Your task to perform on an android device: open chrome privacy settings Image 0: 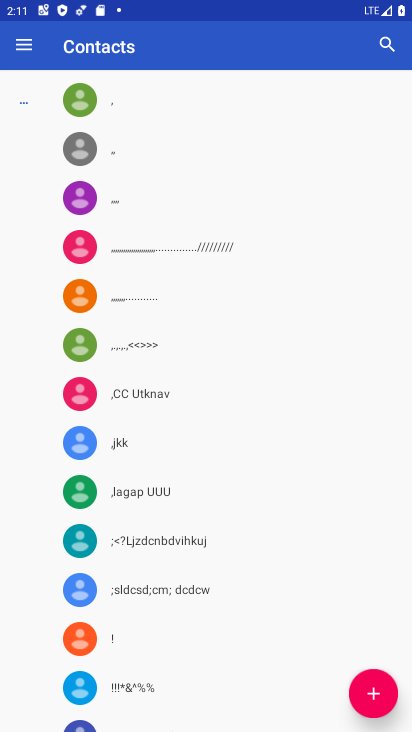
Step 0: press home button
Your task to perform on an android device: open chrome privacy settings Image 1: 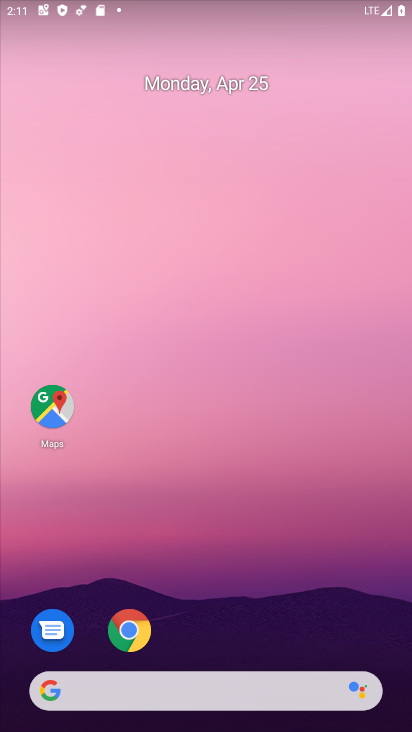
Step 1: drag from (367, 622) to (366, 84)
Your task to perform on an android device: open chrome privacy settings Image 2: 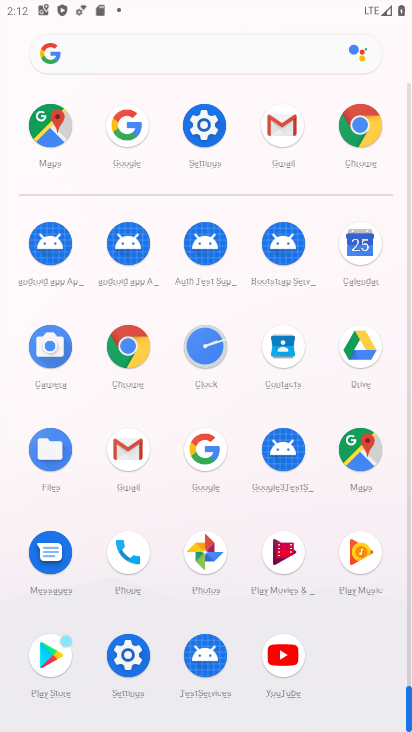
Step 2: click (365, 127)
Your task to perform on an android device: open chrome privacy settings Image 3: 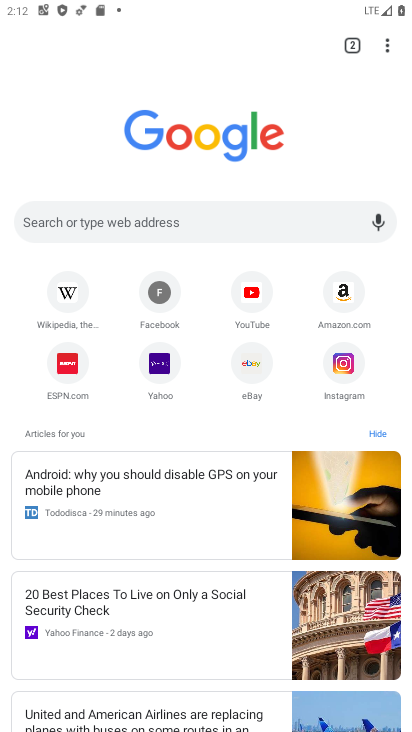
Step 3: click (387, 48)
Your task to perform on an android device: open chrome privacy settings Image 4: 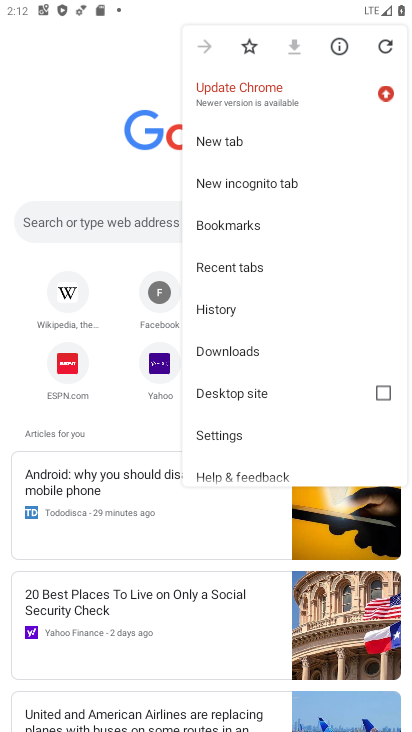
Step 4: click (243, 433)
Your task to perform on an android device: open chrome privacy settings Image 5: 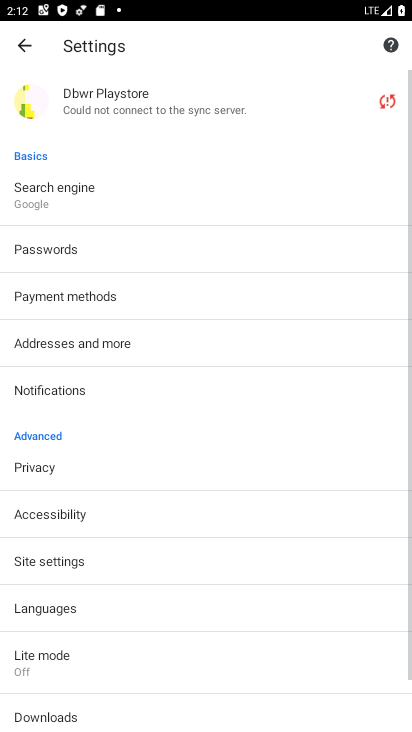
Step 5: drag from (290, 650) to (311, 503)
Your task to perform on an android device: open chrome privacy settings Image 6: 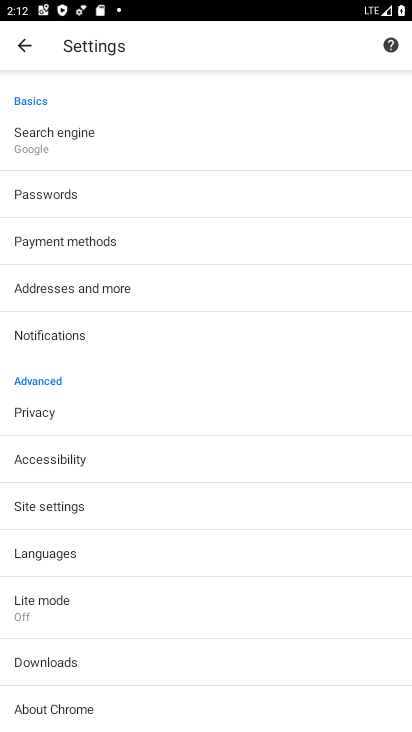
Step 6: drag from (288, 669) to (301, 458)
Your task to perform on an android device: open chrome privacy settings Image 7: 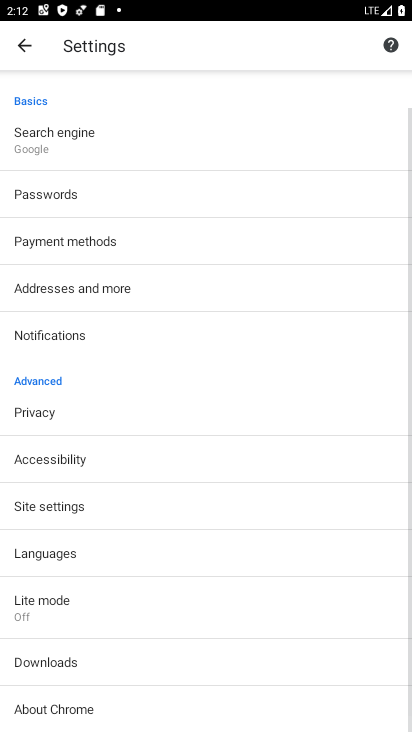
Step 7: drag from (315, 302) to (314, 411)
Your task to perform on an android device: open chrome privacy settings Image 8: 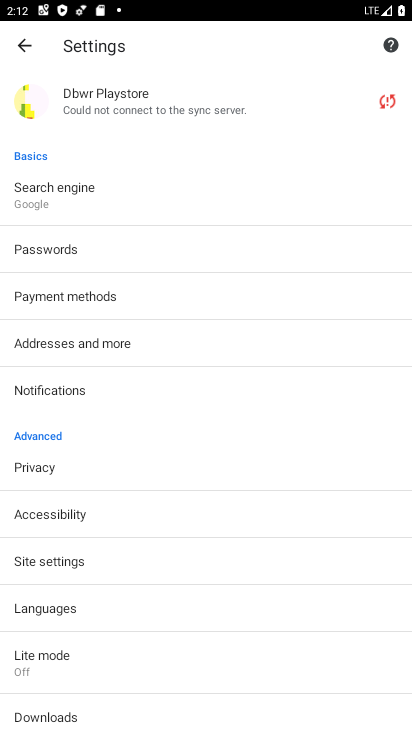
Step 8: drag from (324, 265) to (312, 429)
Your task to perform on an android device: open chrome privacy settings Image 9: 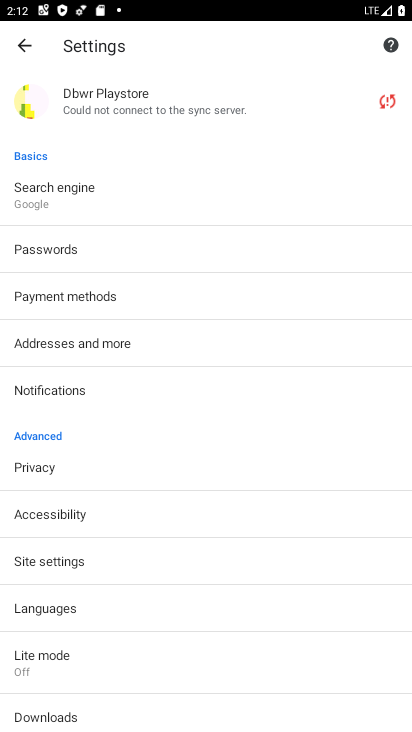
Step 9: click (128, 463)
Your task to perform on an android device: open chrome privacy settings Image 10: 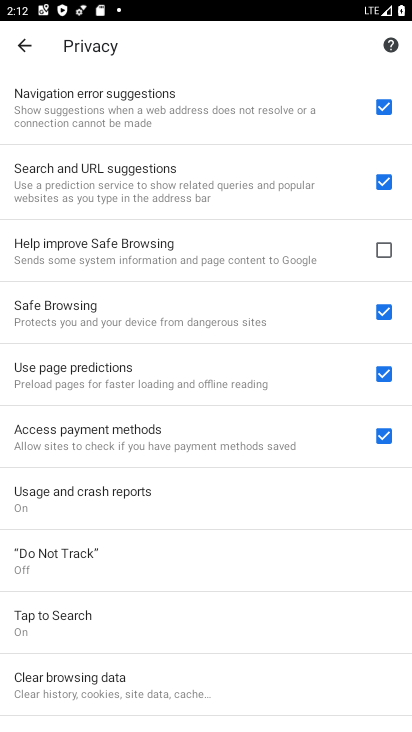
Step 10: task complete